Your task to perform on an android device: open a new tab in the chrome app Image 0: 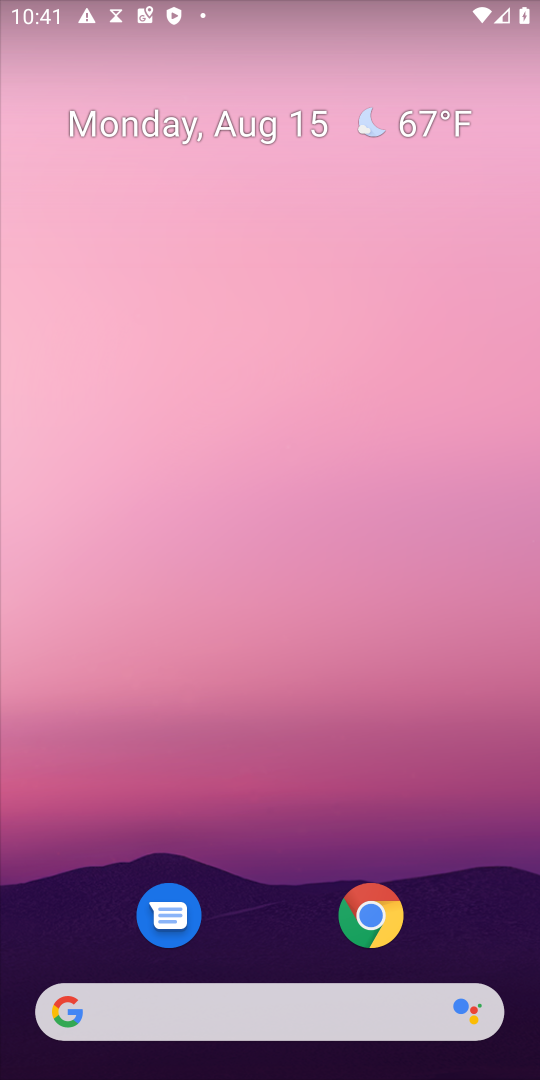
Step 0: click (375, 908)
Your task to perform on an android device: open a new tab in the chrome app Image 1: 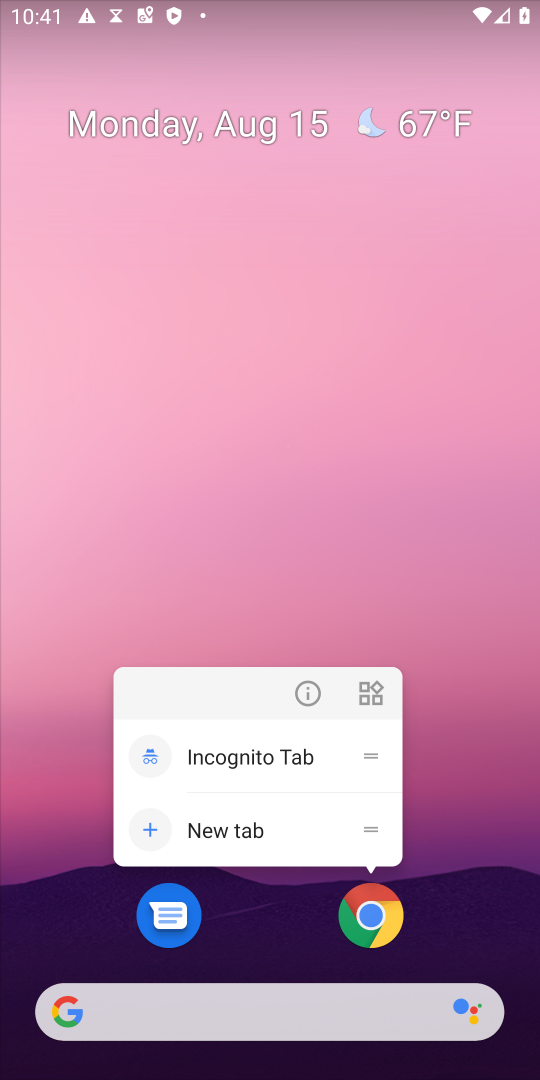
Step 1: click (366, 915)
Your task to perform on an android device: open a new tab in the chrome app Image 2: 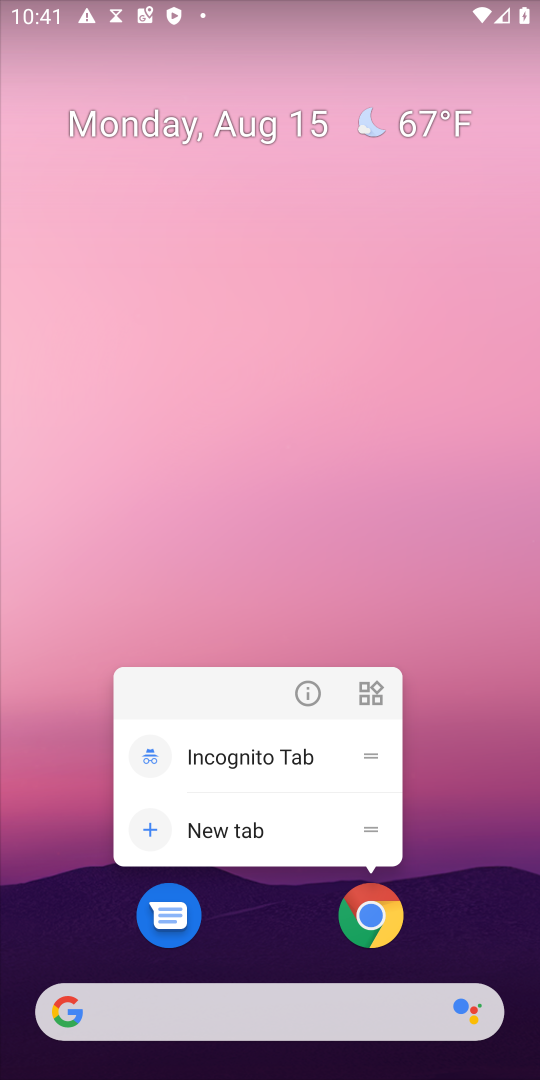
Step 2: click (366, 915)
Your task to perform on an android device: open a new tab in the chrome app Image 3: 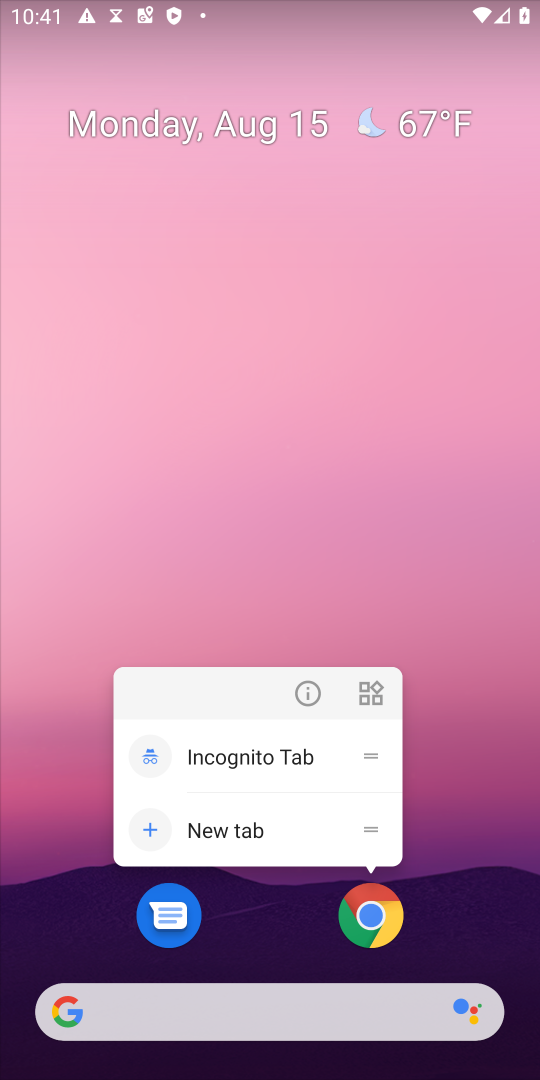
Step 3: click (371, 931)
Your task to perform on an android device: open a new tab in the chrome app Image 4: 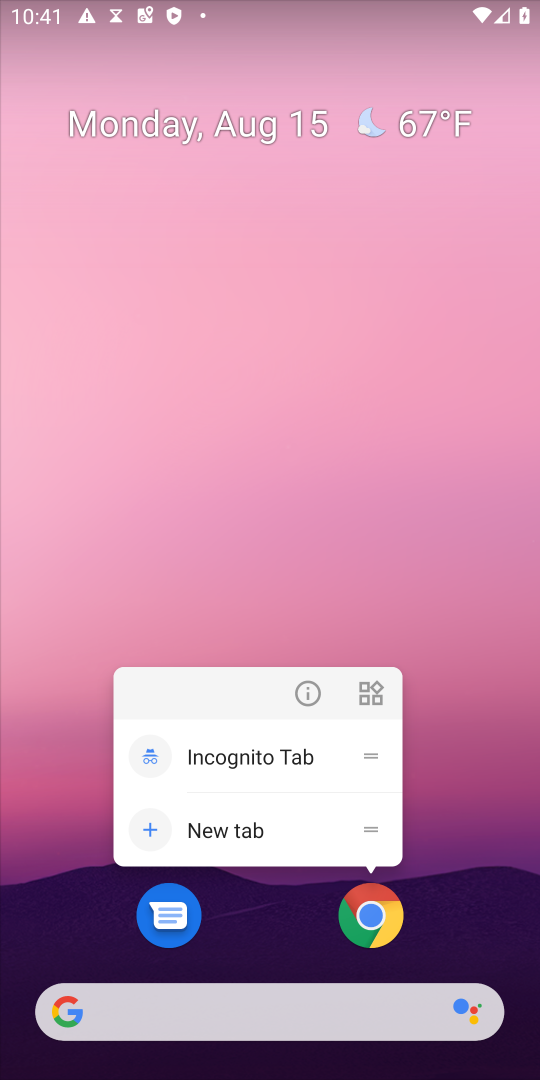
Step 4: click (368, 923)
Your task to perform on an android device: open a new tab in the chrome app Image 5: 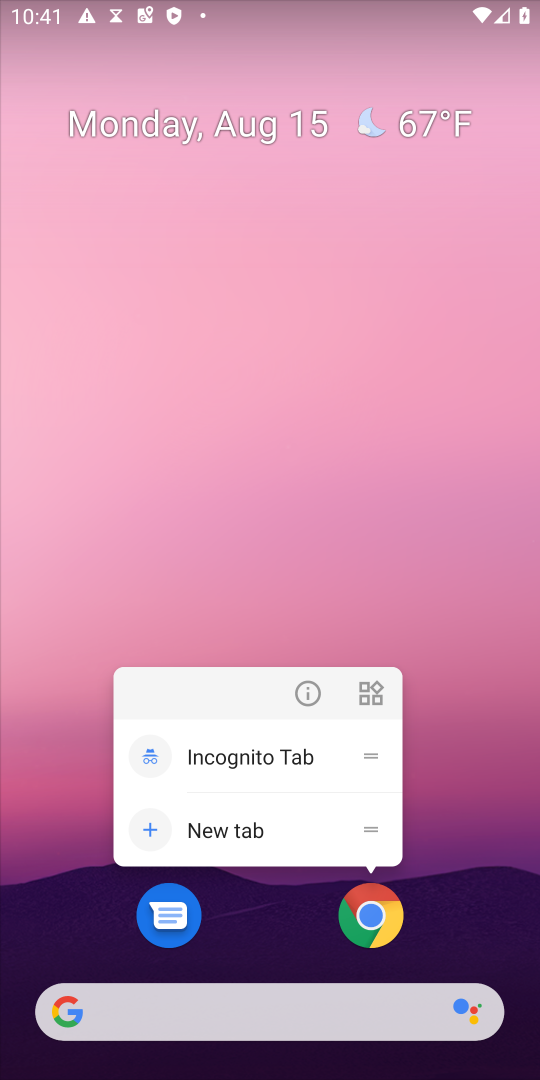
Step 5: click (368, 923)
Your task to perform on an android device: open a new tab in the chrome app Image 6: 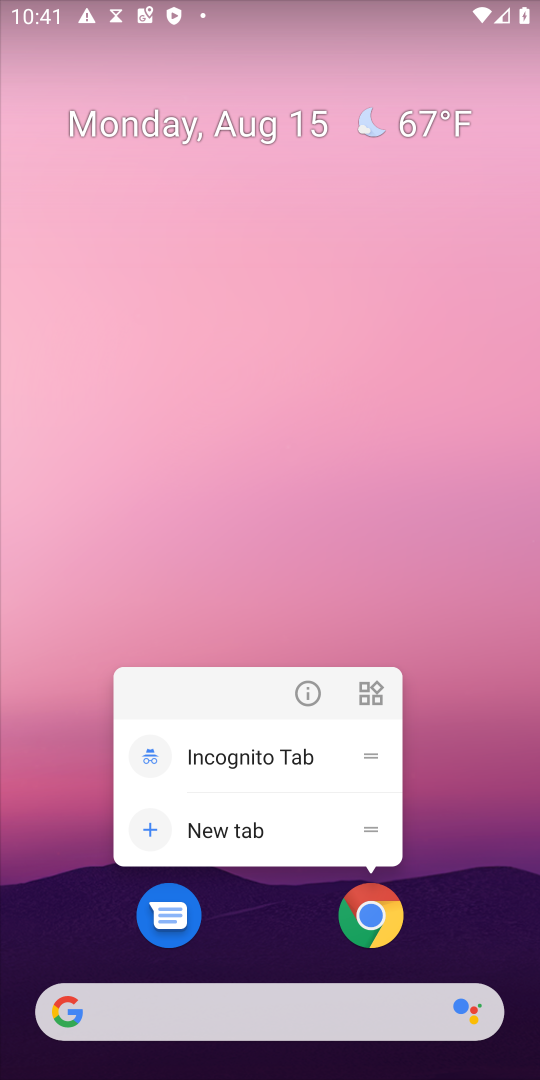
Step 6: click (368, 923)
Your task to perform on an android device: open a new tab in the chrome app Image 7: 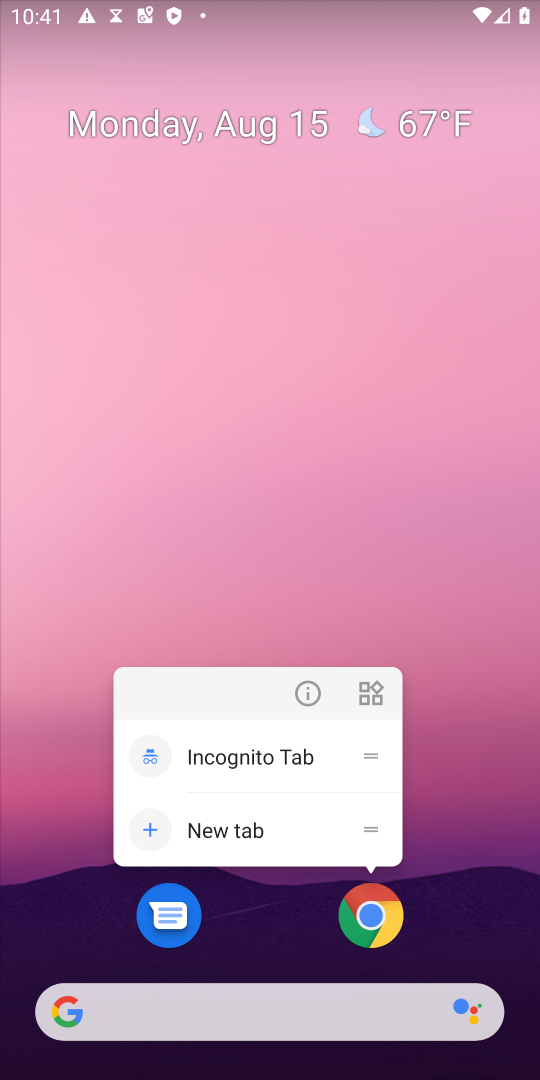
Step 7: click (368, 926)
Your task to perform on an android device: open a new tab in the chrome app Image 8: 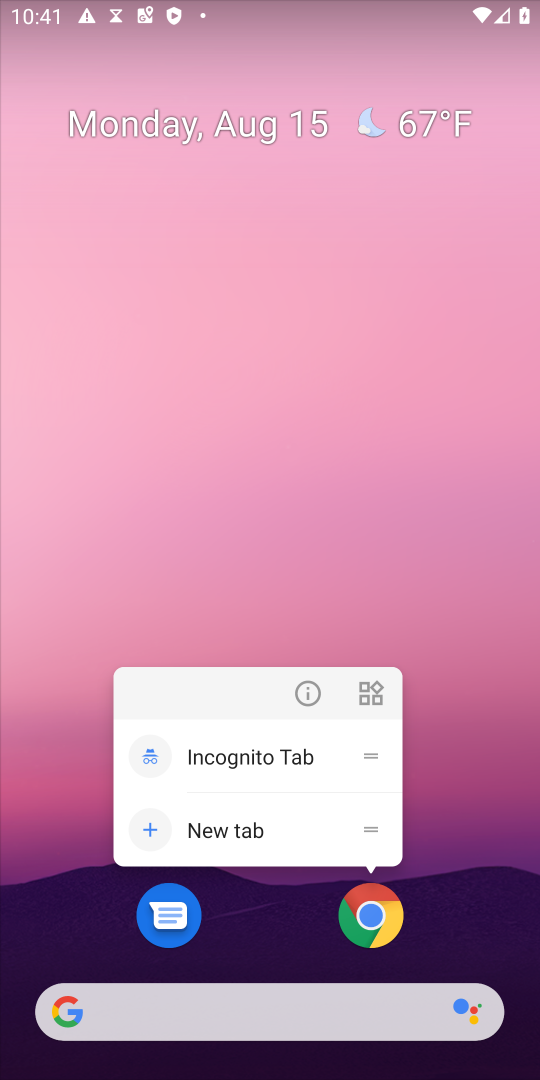
Step 8: click (368, 926)
Your task to perform on an android device: open a new tab in the chrome app Image 9: 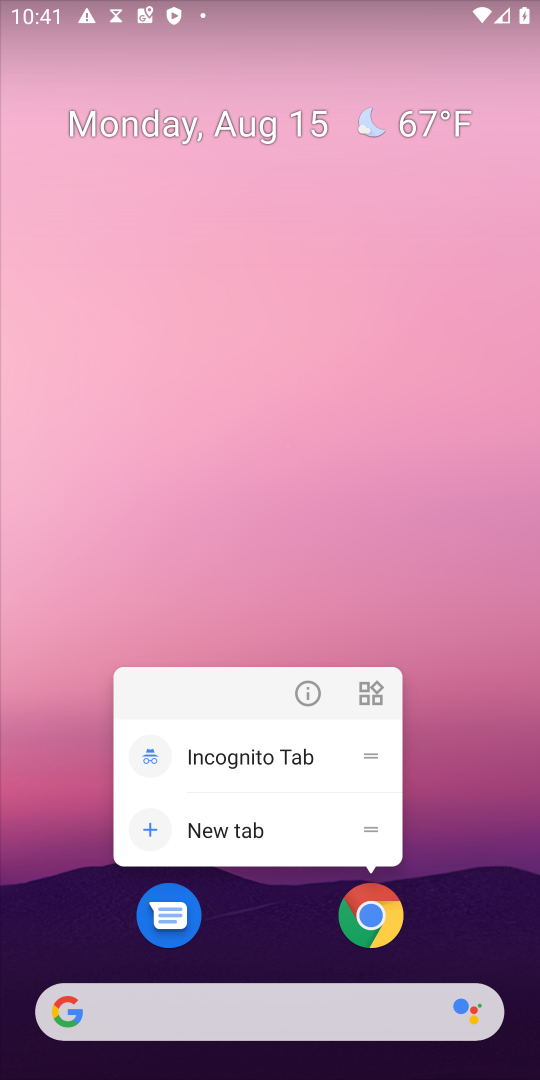
Step 9: click (380, 919)
Your task to perform on an android device: open a new tab in the chrome app Image 10: 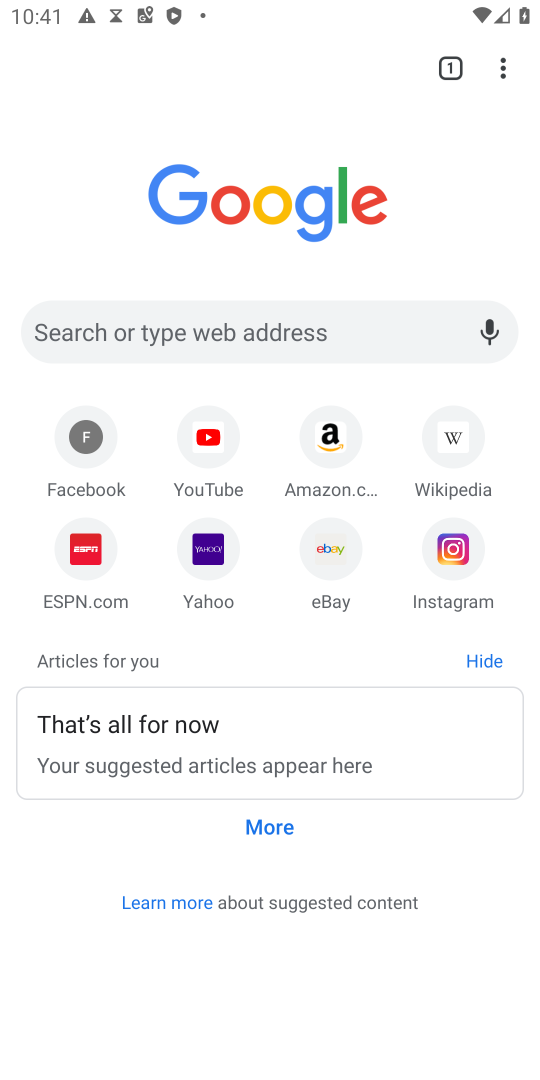
Step 10: click (452, 72)
Your task to perform on an android device: open a new tab in the chrome app Image 11: 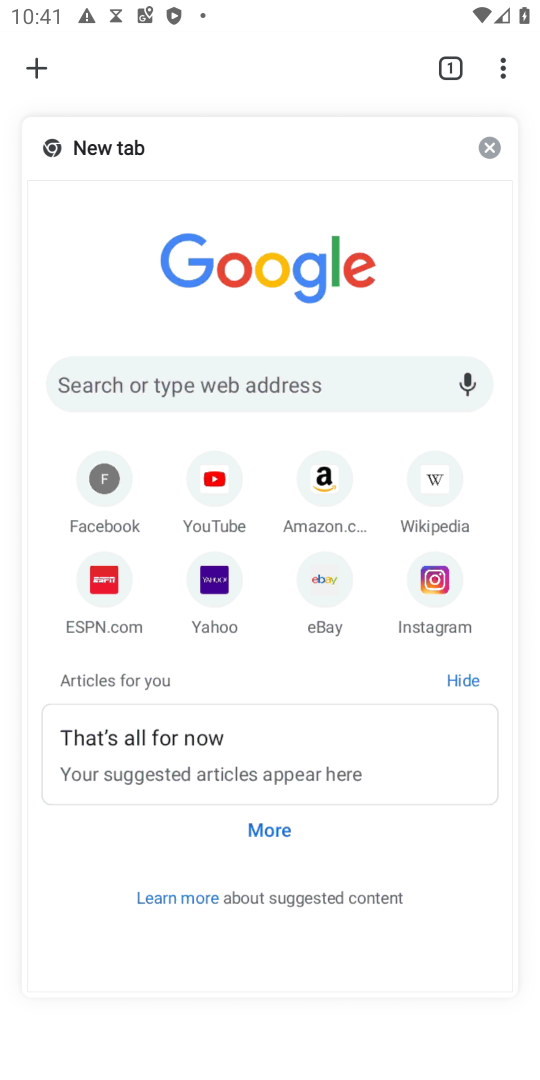
Step 11: click (37, 70)
Your task to perform on an android device: open a new tab in the chrome app Image 12: 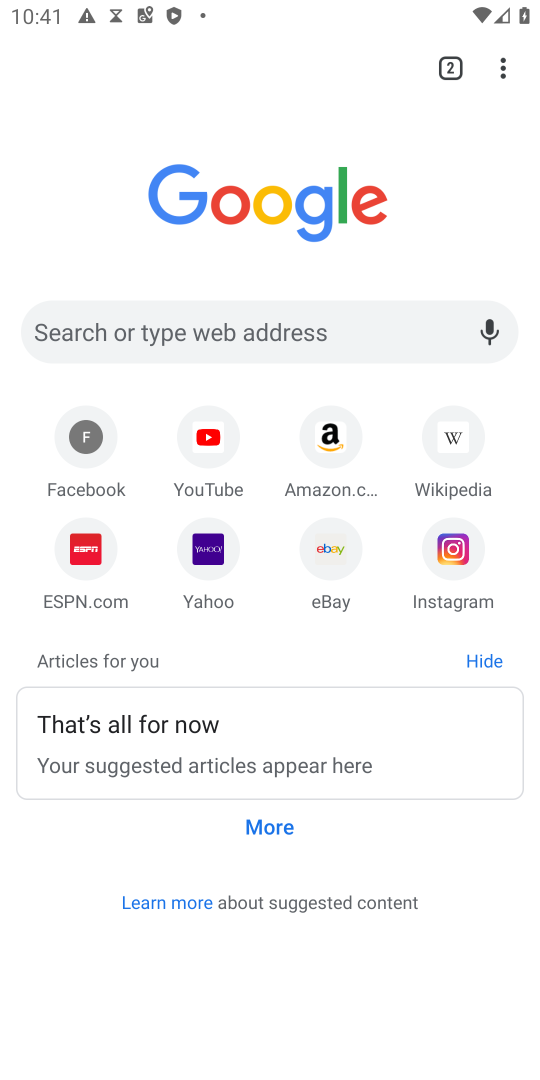
Step 12: task complete